Your task to perform on an android device: Show me popular games on the Play Store Image 0: 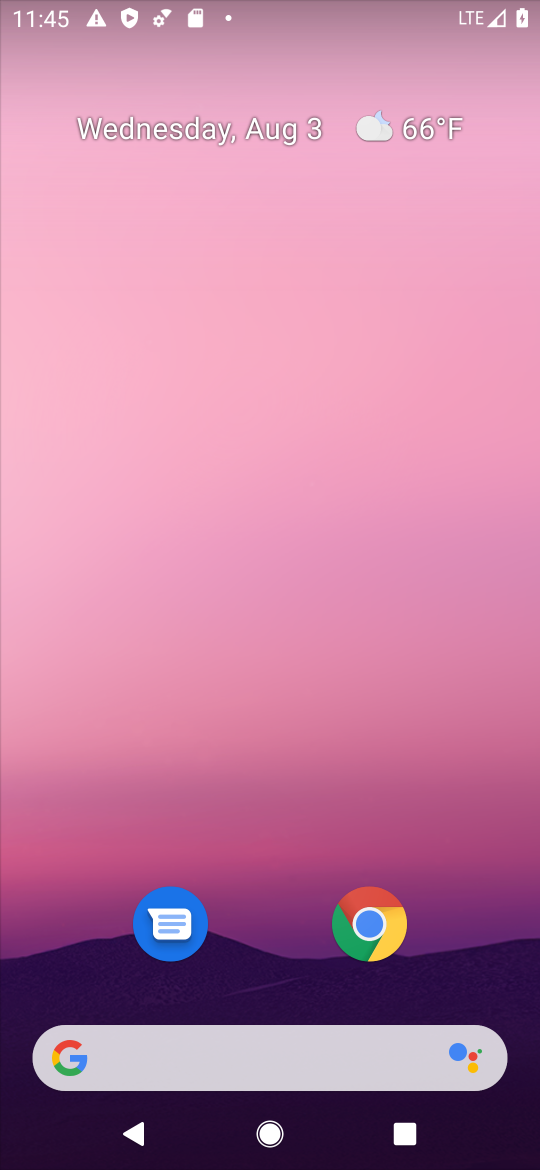
Step 0: drag from (68, 1091) to (366, 62)
Your task to perform on an android device: Show me popular games on the Play Store Image 1: 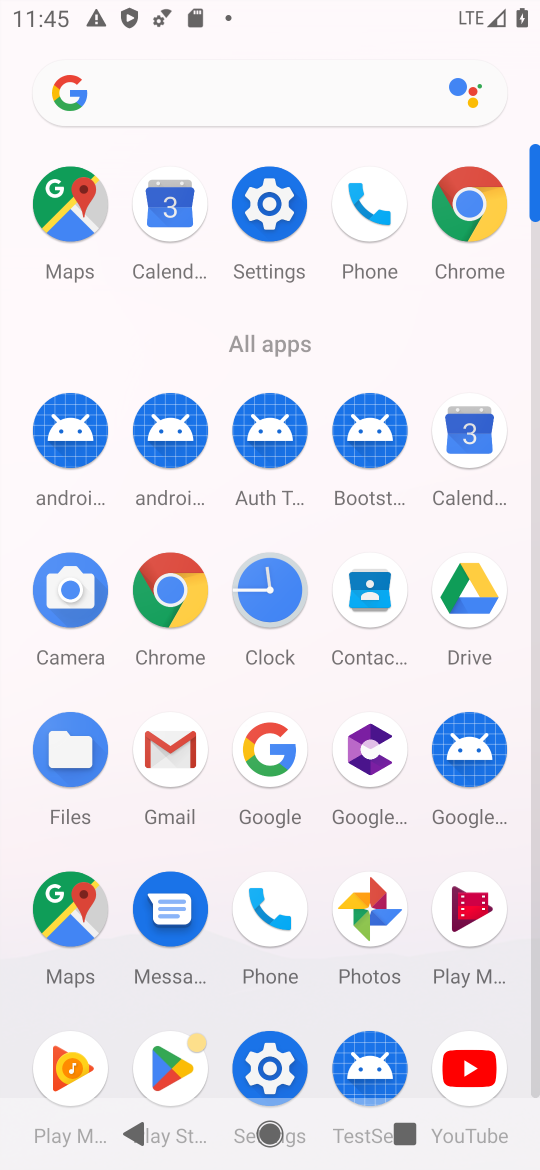
Step 1: click (181, 1049)
Your task to perform on an android device: Show me popular games on the Play Store Image 2: 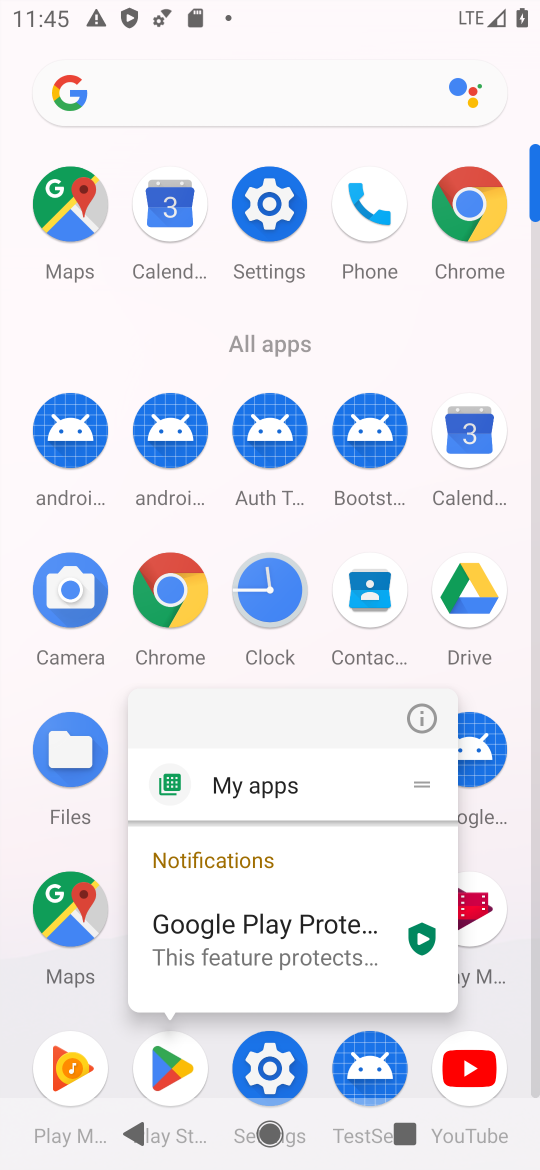
Step 2: click (170, 1072)
Your task to perform on an android device: Show me popular games on the Play Store Image 3: 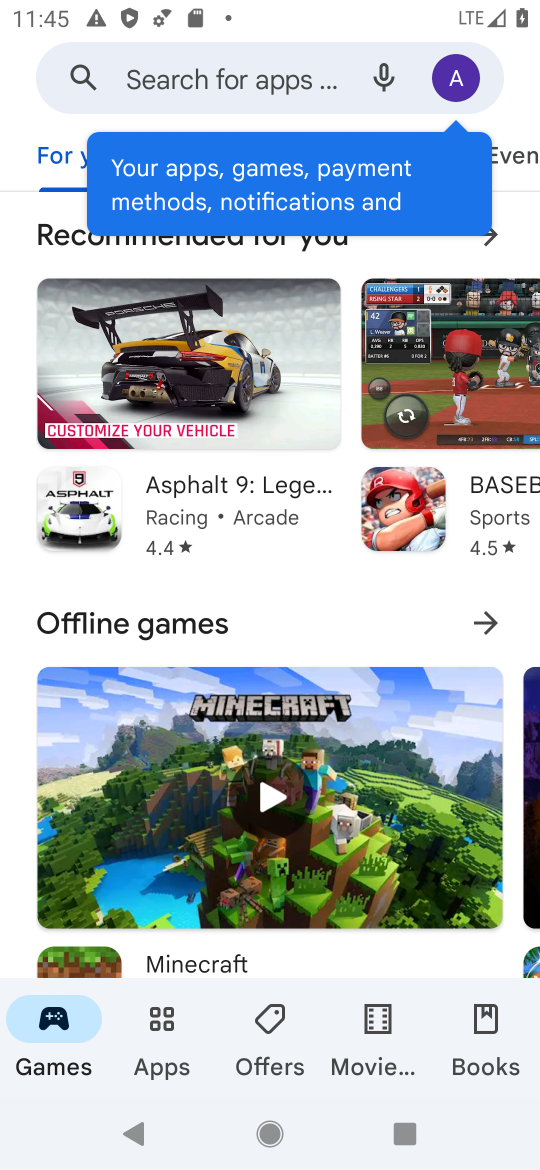
Step 3: click (177, 74)
Your task to perform on an android device: Show me popular games on the Play Store Image 4: 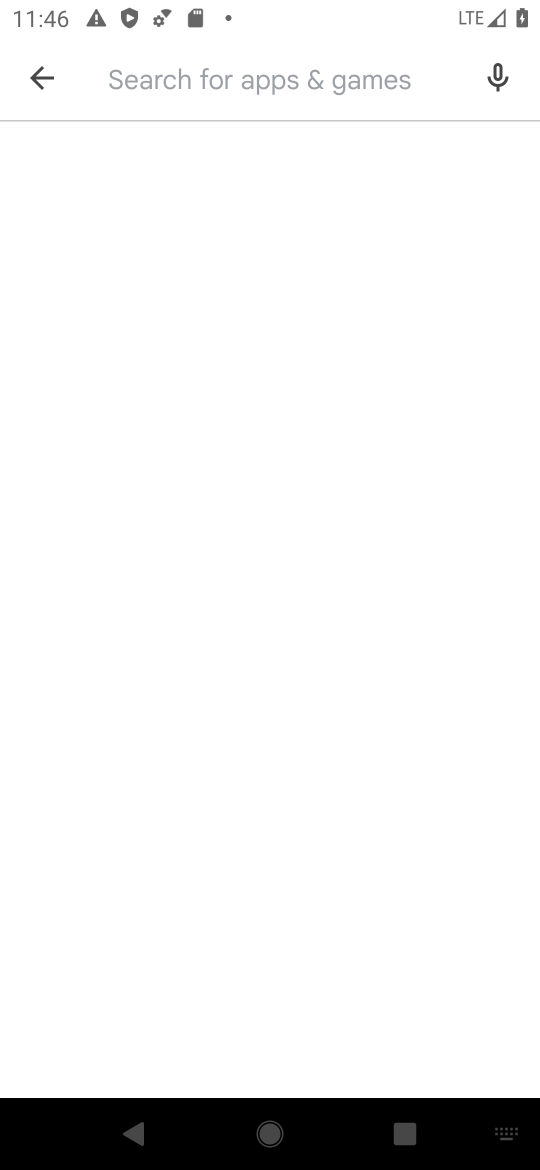
Step 4: type " popular games"
Your task to perform on an android device: Show me popular games on the Play Store Image 5: 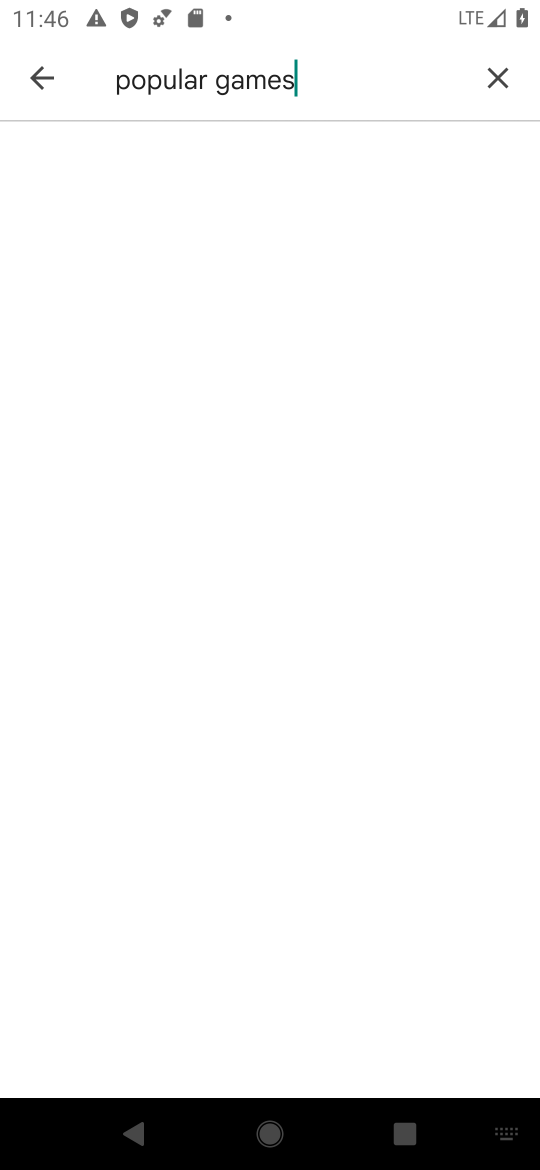
Step 5: type ""
Your task to perform on an android device: Show me popular games on the Play Store Image 6: 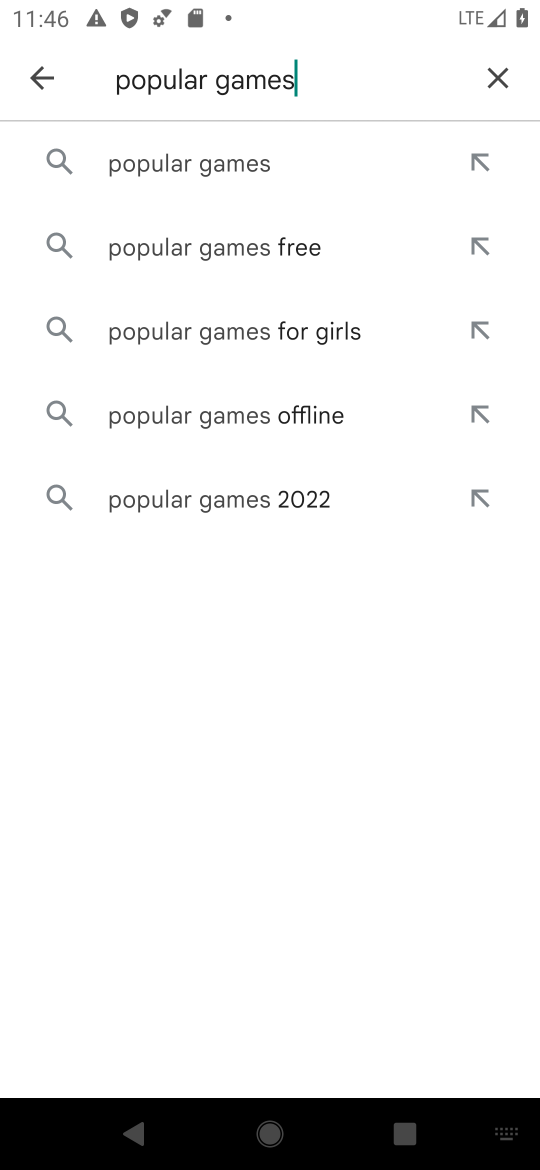
Step 6: click (189, 158)
Your task to perform on an android device: Show me popular games on the Play Store Image 7: 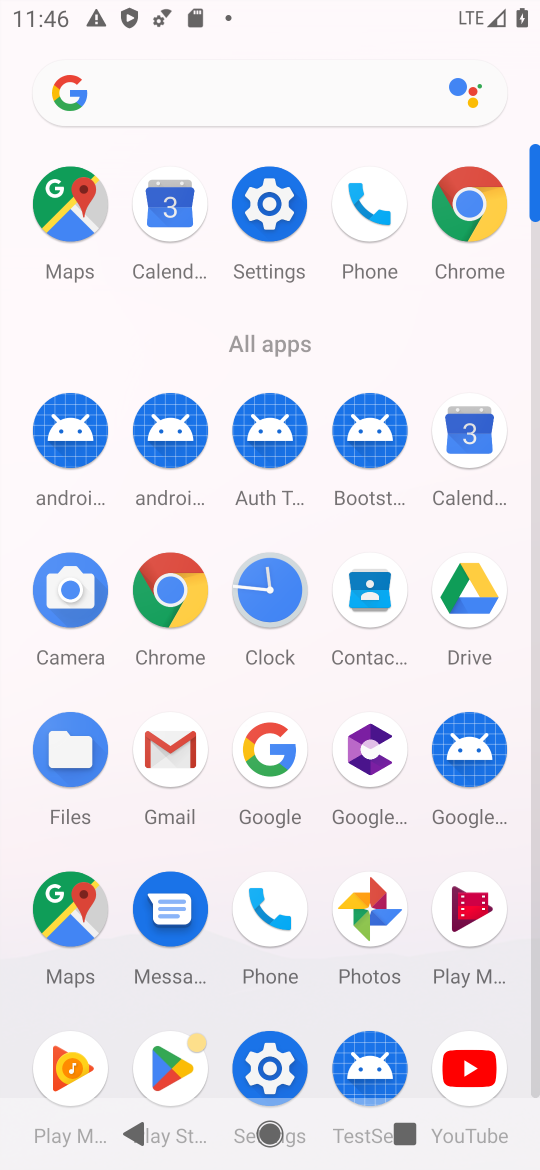
Step 7: task complete